Your task to perform on an android device: all mails in gmail Image 0: 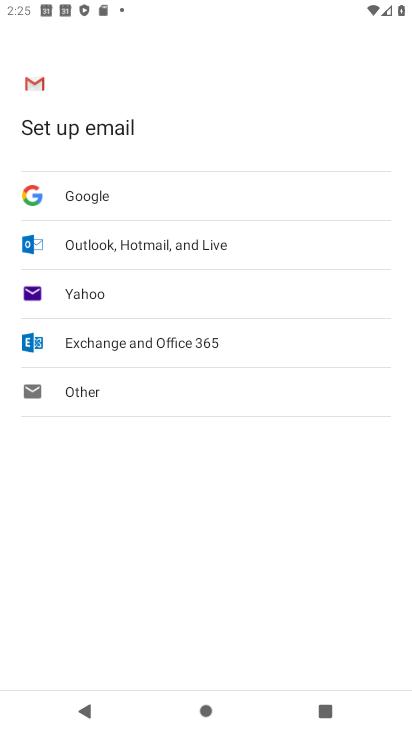
Step 0: press home button
Your task to perform on an android device: all mails in gmail Image 1: 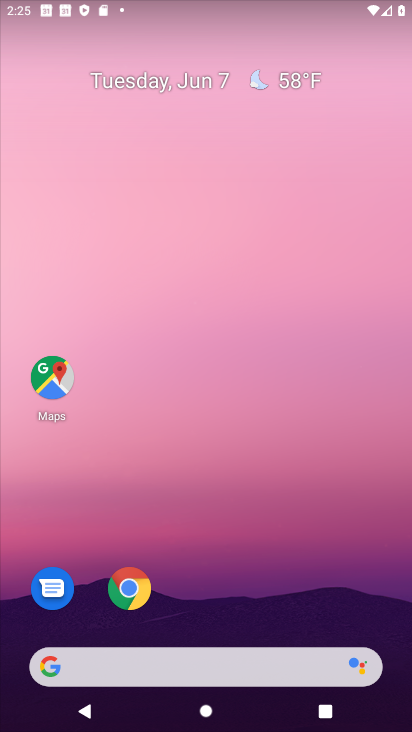
Step 1: drag from (240, 628) to (255, 44)
Your task to perform on an android device: all mails in gmail Image 2: 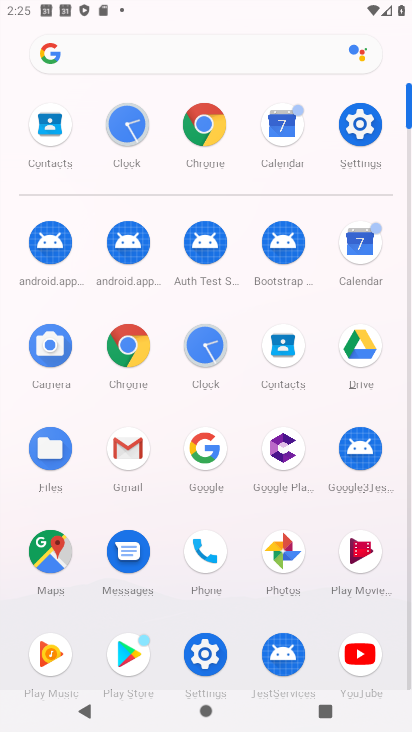
Step 2: click (137, 449)
Your task to perform on an android device: all mails in gmail Image 3: 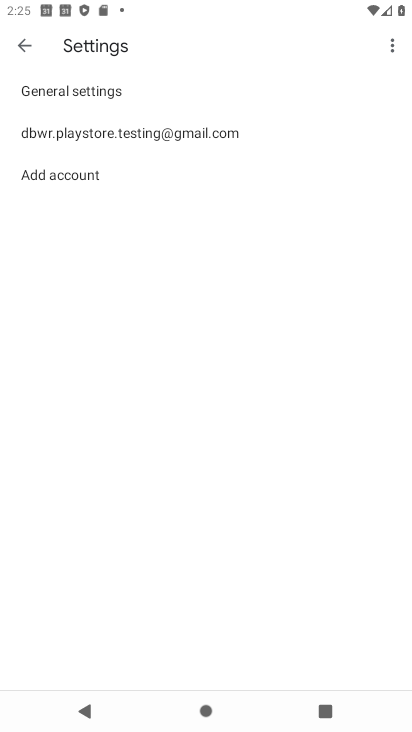
Step 3: task complete